Your task to perform on an android device: visit the assistant section in the google photos Image 0: 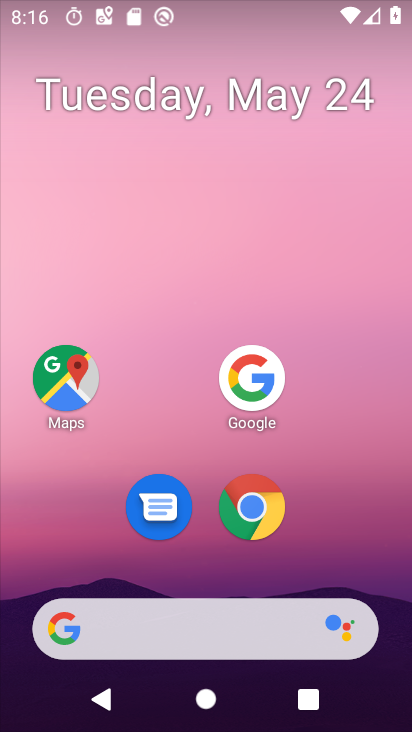
Step 0: press home button
Your task to perform on an android device: visit the assistant section in the google photos Image 1: 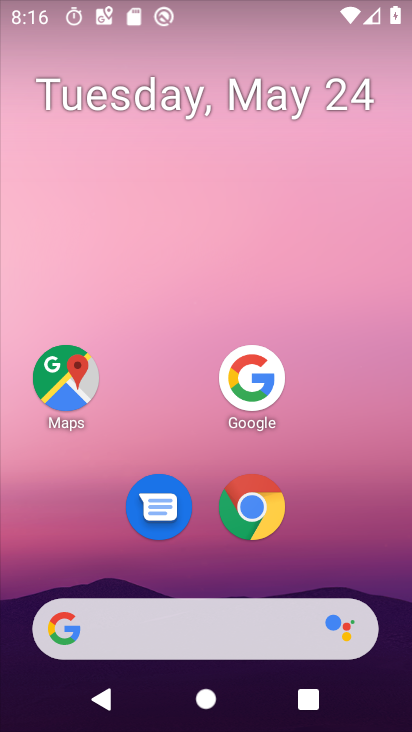
Step 1: drag from (161, 627) to (315, 119)
Your task to perform on an android device: visit the assistant section in the google photos Image 2: 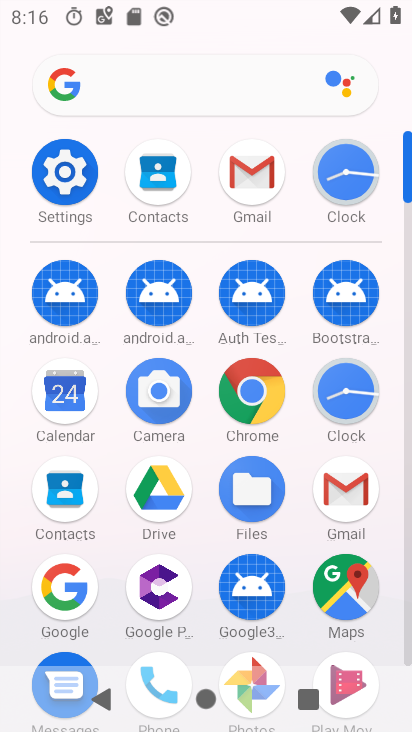
Step 2: drag from (202, 589) to (341, 197)
Your task to perform on an android device: visit the assistant section in the google photos Image 3: 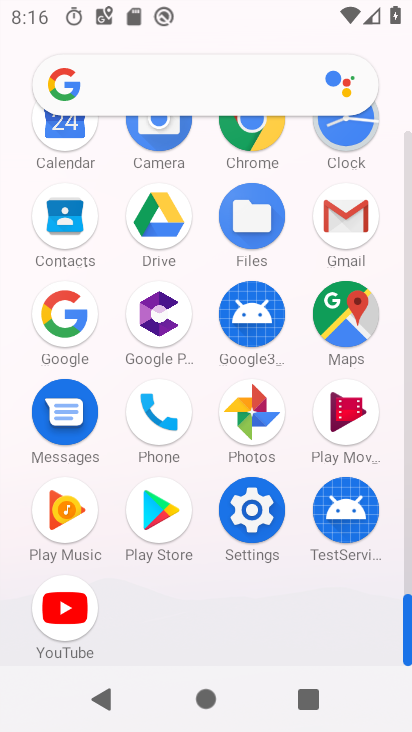
Step 3: click (255, 402)
Your task to perform on an android device: visit the assistant section in the google photos Image 4: 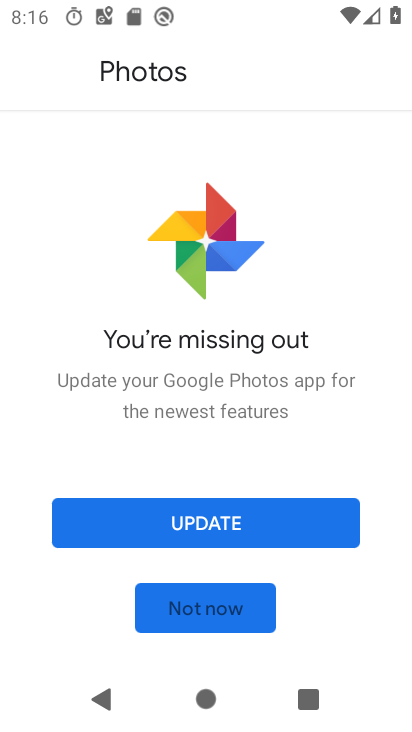
Step 4: click (221, 523)
Your task to perform on an android device: visit the assistant section in the google photos Image 5: 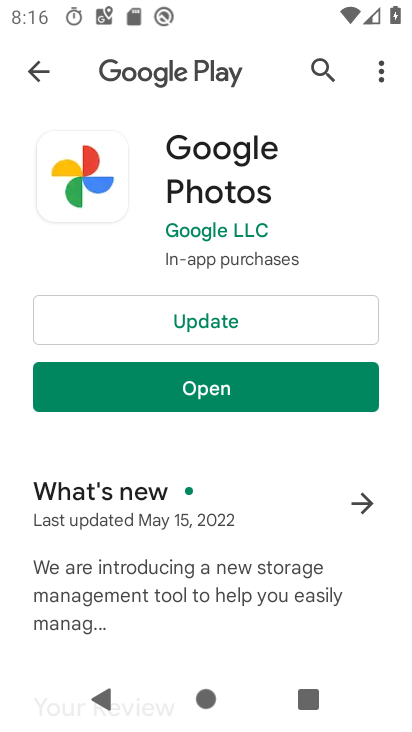
Step 5: click (207, 321)
Your task to perform on an android device: visit the assistant section in the google photos Image 6: 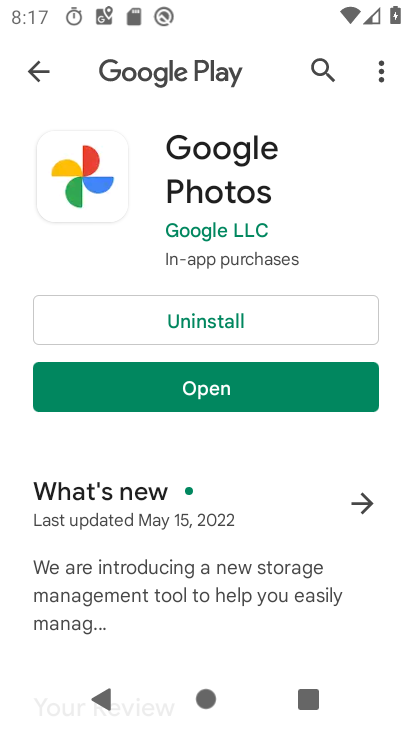
Step 6: click (218, 390)
Your task to perform on an android device: visit the assistant section in the google photos Image 7: 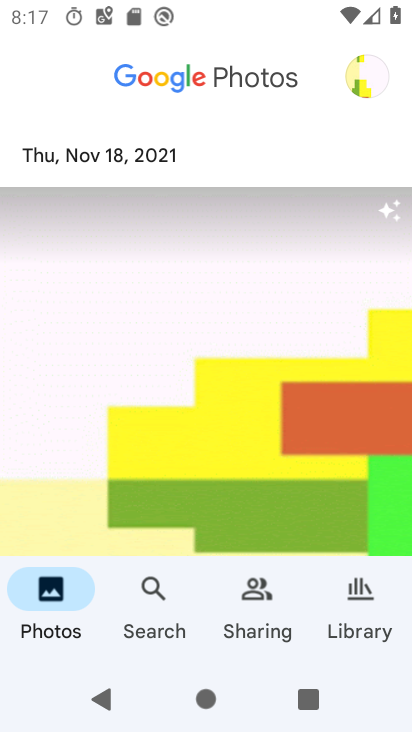
Step 7: click (163, 624)
Your task to perform on an android device: visit the assistant section in the google photos Image 8: 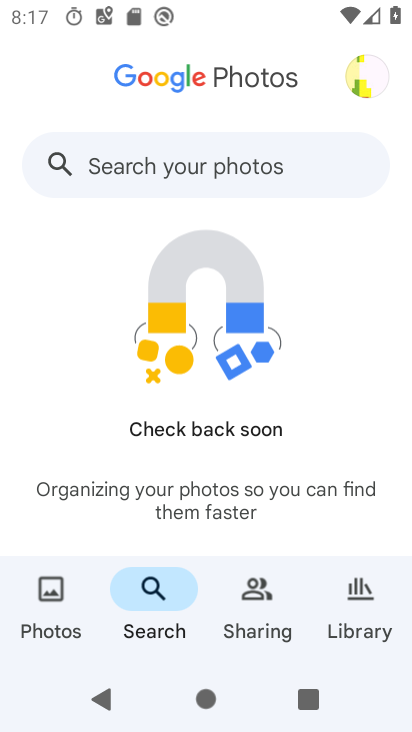
Step 8: task complete